Your task to perform on an android device: Is it going to rain this weekend? Image 0: 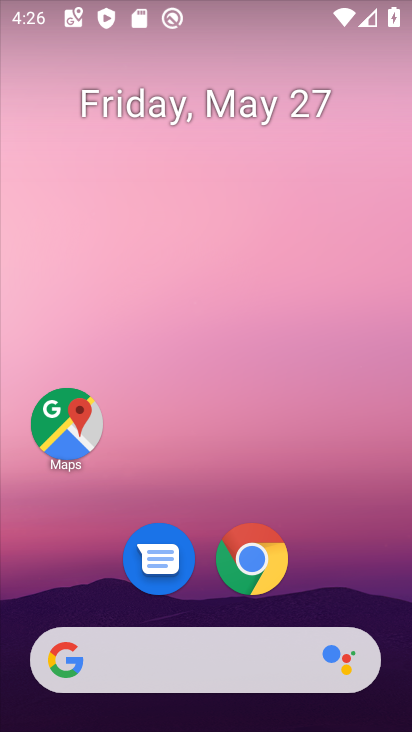
Step 0: click (259, 569)
Your task to perform on an android device: Is it going to rain this weekend? Image 1: 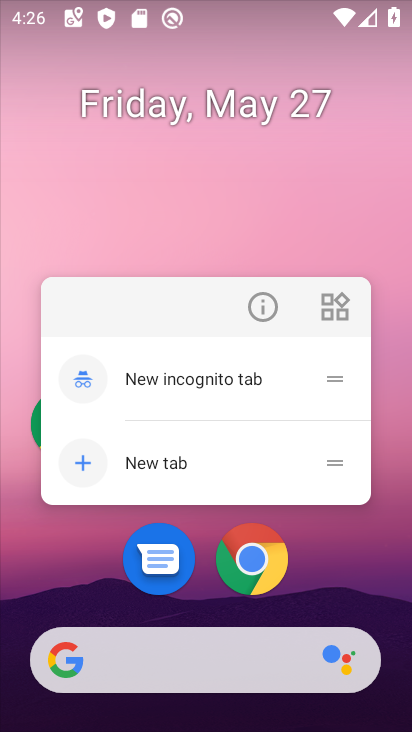
Step 1: press home button
Your task to perform on an android device: Is it going to rain this weekend? Image 2: 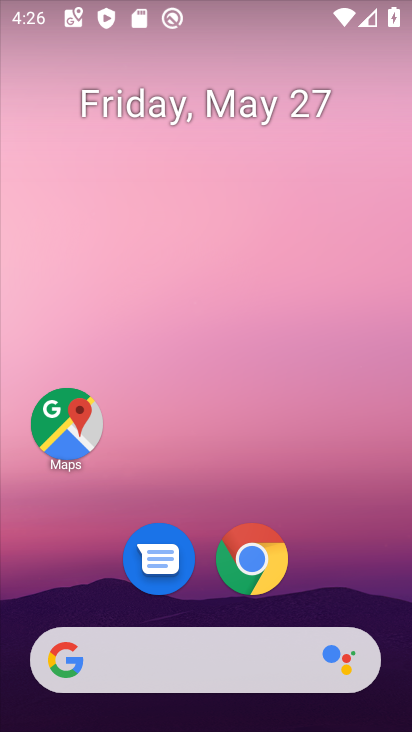
Step 2: drag from (0, 213) to (382, 196)
Your task to perform on an android device: Is it going to rain this weekend? Image 3: 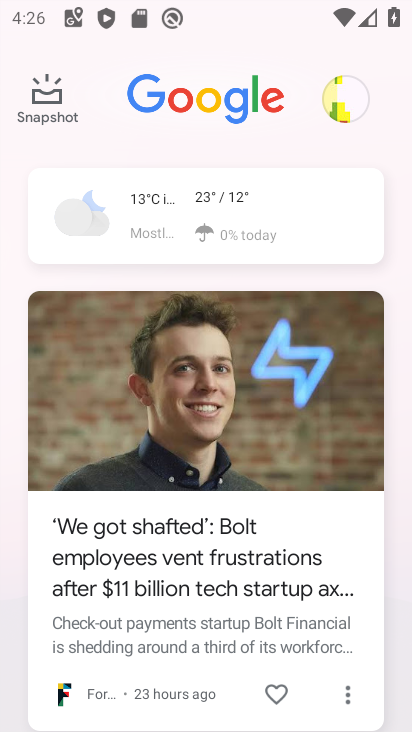
Step 3: click (218, 194)
Your task to perform on an android device: Is it going to rain this weekend? Image 4: 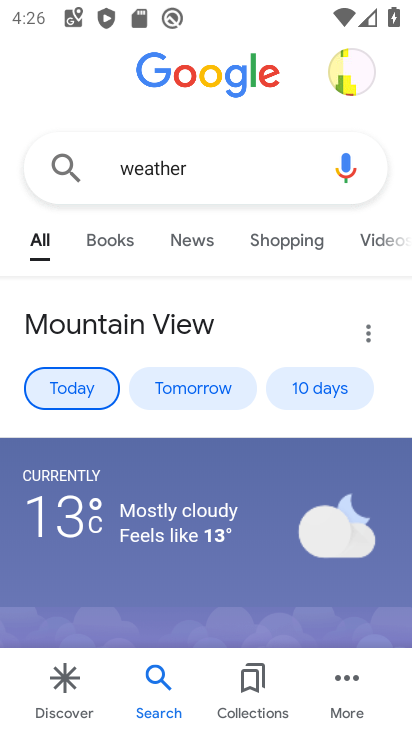
Step 4: click (322, 395)
Your task to perform on an android device: Is it going to rain this weekend? Image 5: 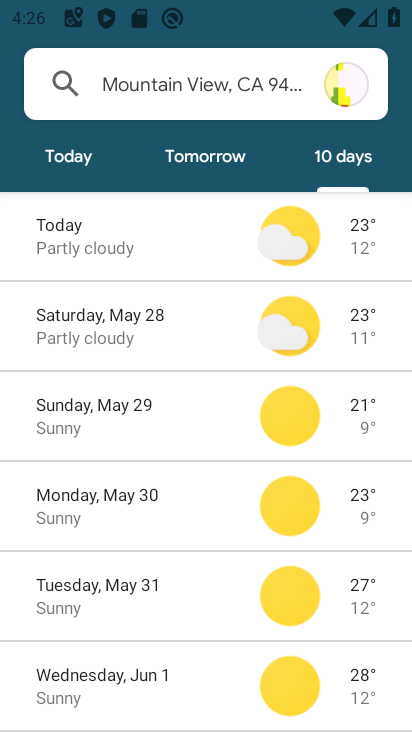
Step 5: task complete